Your task to perform on an android device: Open notification settings Image 0: 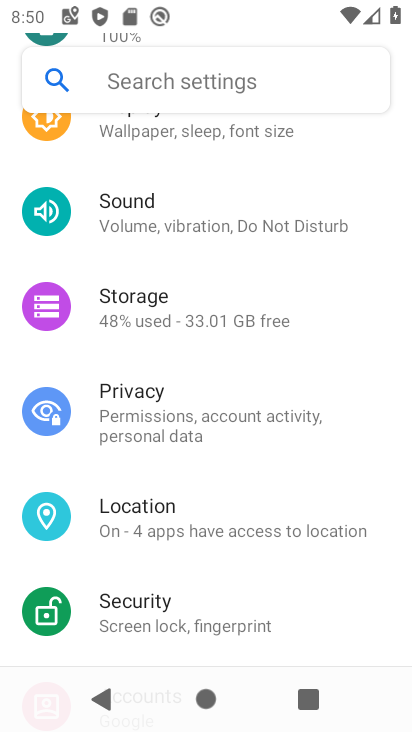
Step 0: drag from (216, 209) to (163, 562)
Your task to perform on an android device: Open notification settings Image 1: 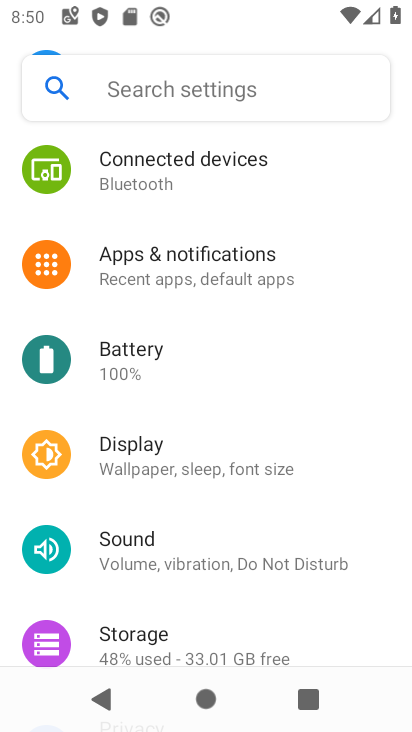
Step 1: click (163, 266)
Your task to perform on an android device: Open notification settings Image 2: 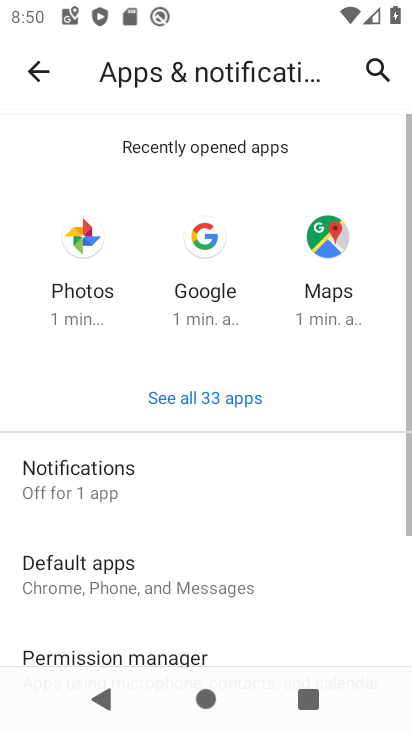
Step 2: click (84, 482)
Your task to perform on an android device: Open notification settings Image 3: 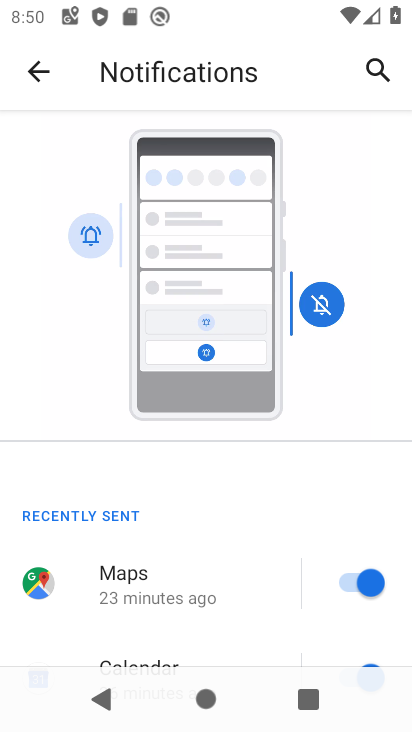
Step 3: task complete